Your task to perform on an android device: turn on showing notifications on the lock screen Image 0: 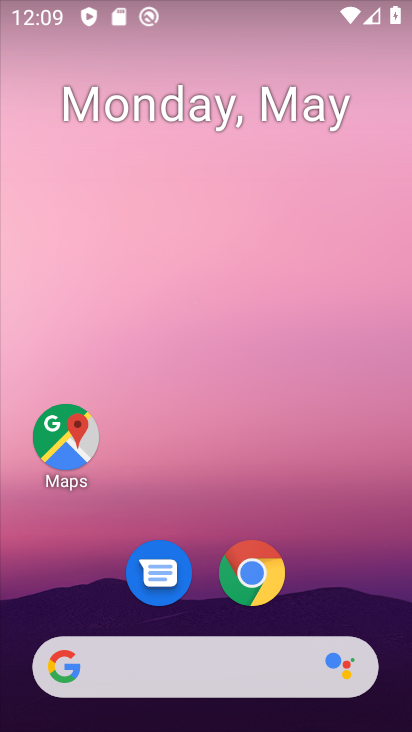
Step 0: drag from (202, 604) to (167, 155)
Your task to perform on an android device: turn on showing notifications on the lock screen Image 1: 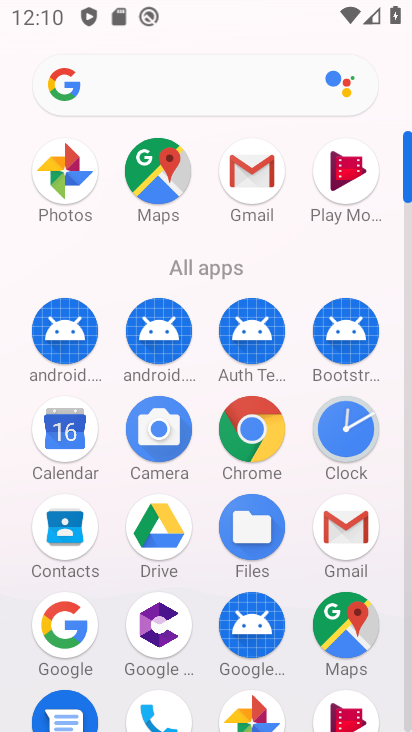
Step 1: drag from (199, 687) to (231, 137)
Your task to perform on an android device: turn on showing notifications on the lock screen Image 2: 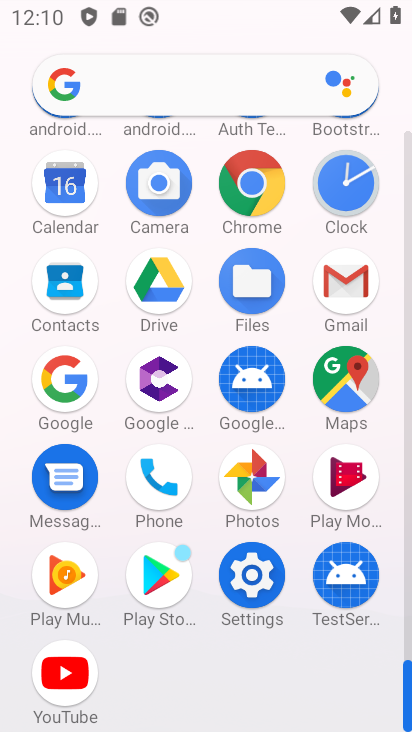
Step 2: click (249, 557)
Your task to perform on an android device: turn on showing notifications on the lock screen Image 3: 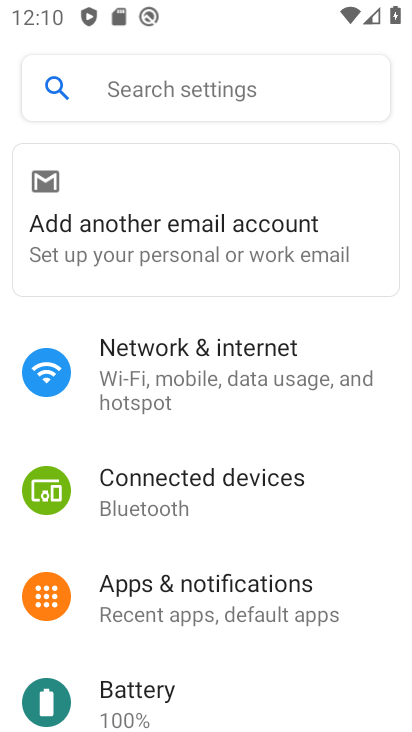
Step 3: click (247, 617)
Your task to perform on an android device: turn on showing notifications on the lock screen Image 4: 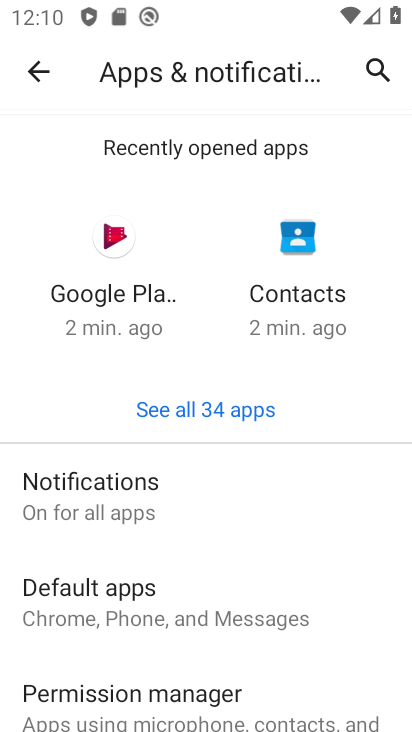
Step 4: click (147, 477)
Your task to perform on an android device: turn on showing notifications on the lock screen Image 5: 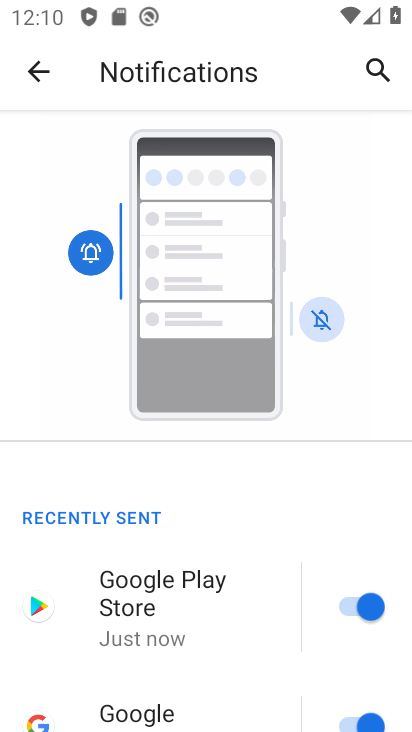
Step 5: drag from (208, 677) to (178, 161)
Your task to perform on an android device: turn on showing notifications on the lock screen Image 6: 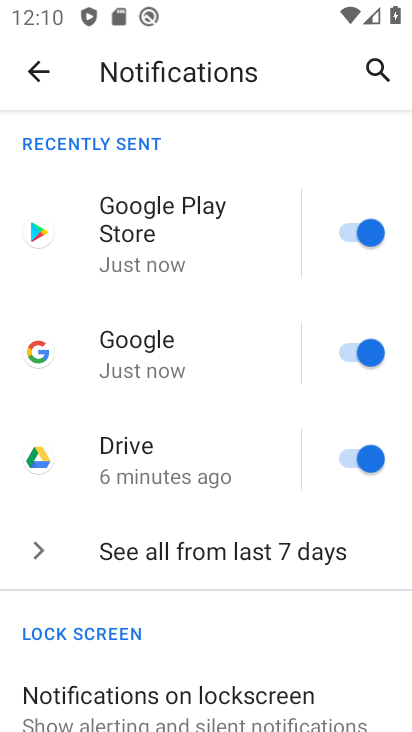
Step 6: click (236, 704)
Your task to perform on an android device: turn on showing notifications on the lock screen Image 7: 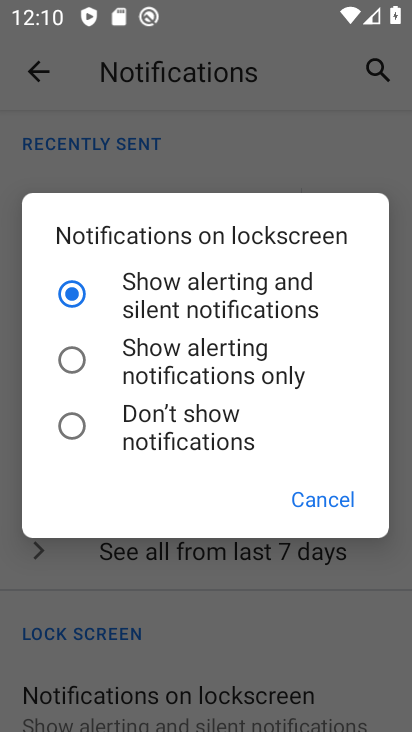
Step 7: task complete